Your task to perform on an android device: turn on sleep mode Image 0: 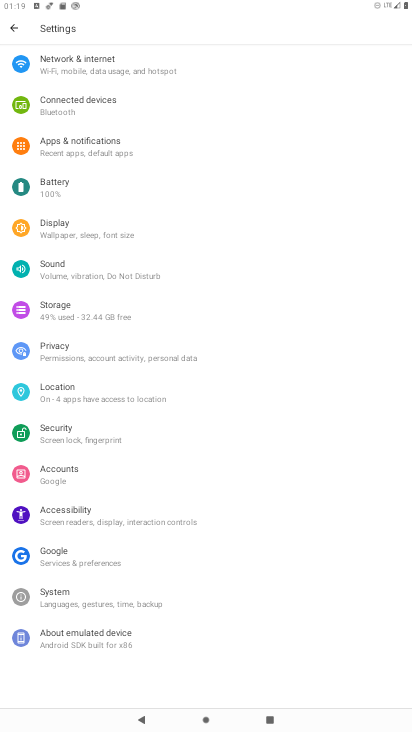
Step 0: click (58, 223)
Your task to perform on an android device: turn on sleep mode Image 1: 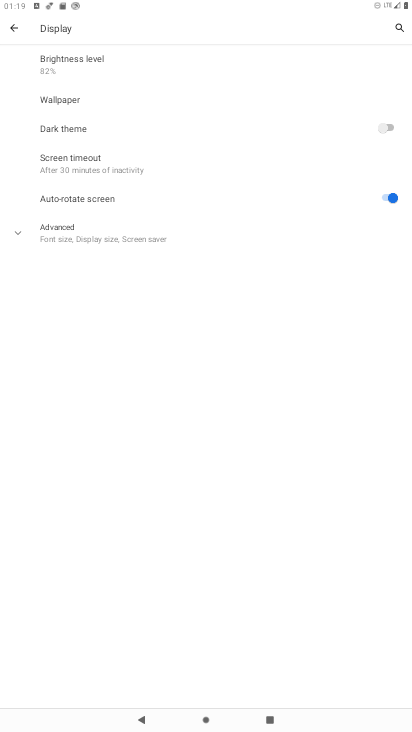
Step 1: click (16, 229)
Your task to perform on an android device: turn on sleep mode Image 2: 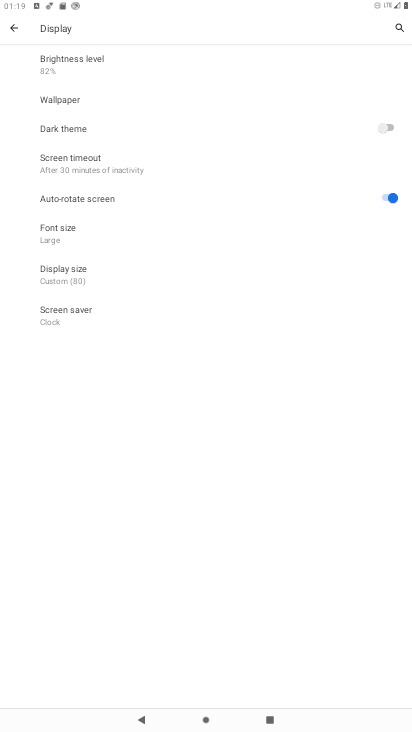
Step 2: task complete